Your task to perform on an android device: Open privacy settings Image 0: 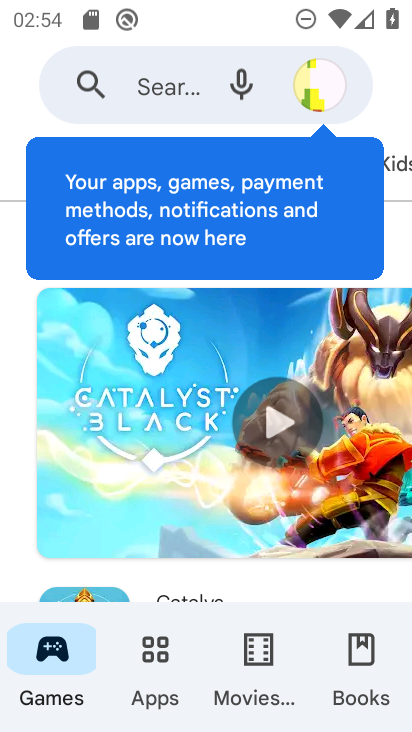
Step 0: press home button
Your task to perform on an android device: Open privacy settings Image 1: 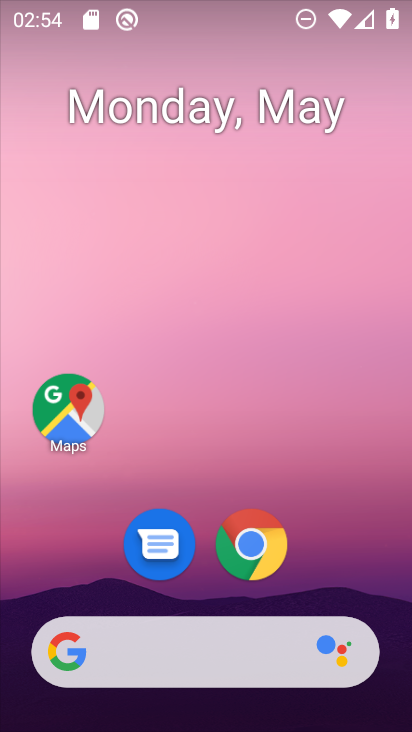
Step 1: drag from (360, 590) to (379, 164)
Your task to perform on an android device: Open privacy settings Image 2: 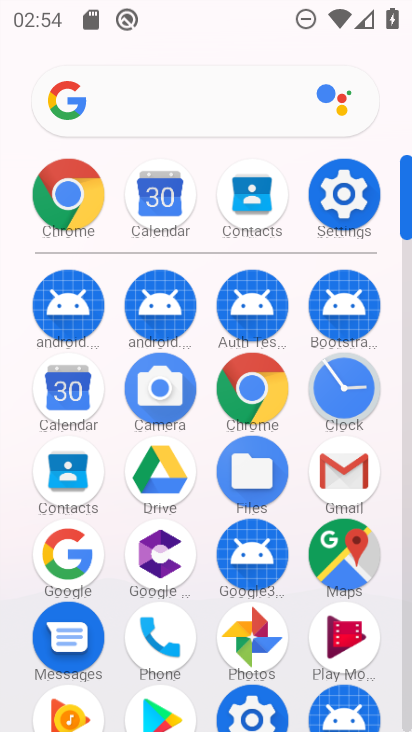
Step 2: click (342, 217)
Your task to perform on an android device: Open privacy settings Image 3: 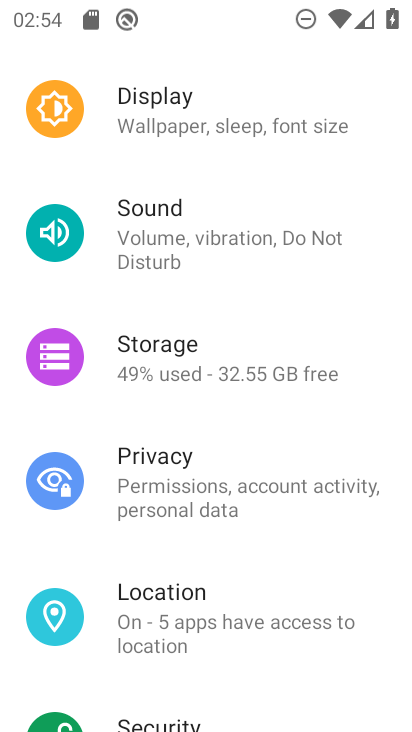
Step 3: drag from (371, 227) to (373, 326)
Your task to perform on an android device: Open privacy settings Image 4: 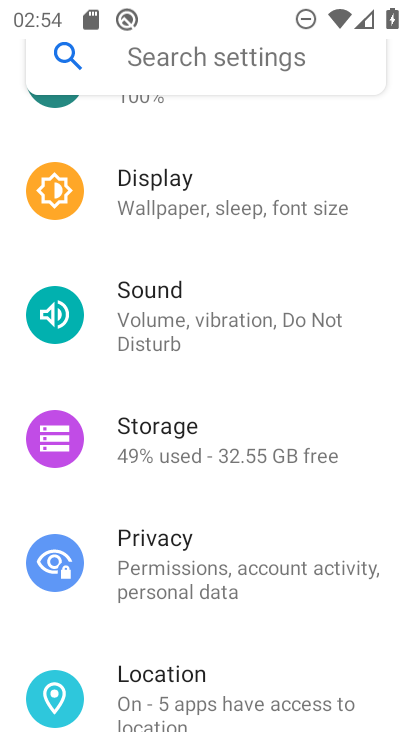
Step 4: drag from (365, 202) to (374, 300)
Your task to perform on an android device: Open privacy settings Image 5: 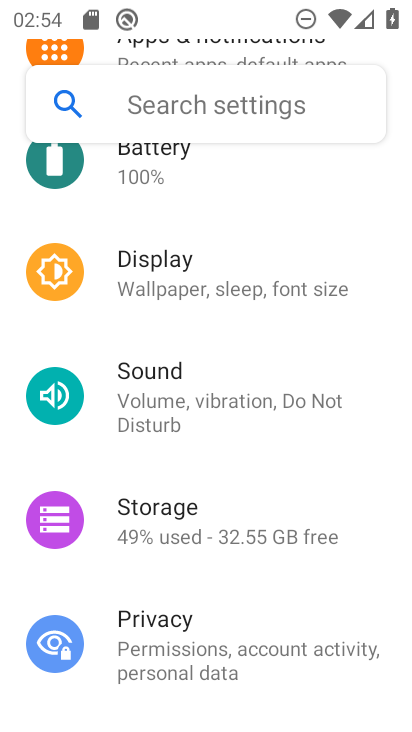
Step 5: drag from (363, 180) to (377, 359)
Your task to perform on an android device: Open privacy settings Image 6: 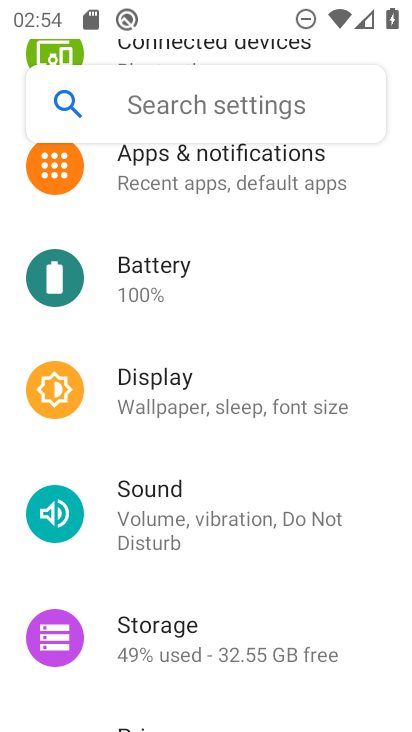
Step 6: drag from (363, 221) to (360, 346)
Your task to perform on an android device: Open privacy settings Image 7: 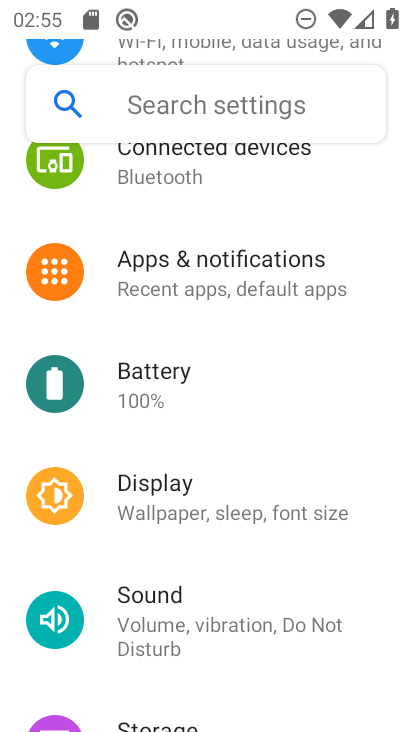
Step 7: drag from (352, 181) to (347, 384)
Your task to perform on an android device: Open privacy settings Image 8: 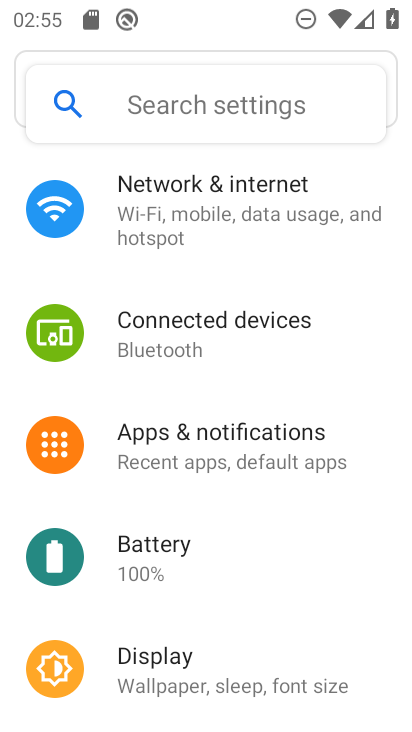
Step 8: drag from (359, 177) to (360, 377)
Your task to perform on an android device: Open privacy settings Image 9: 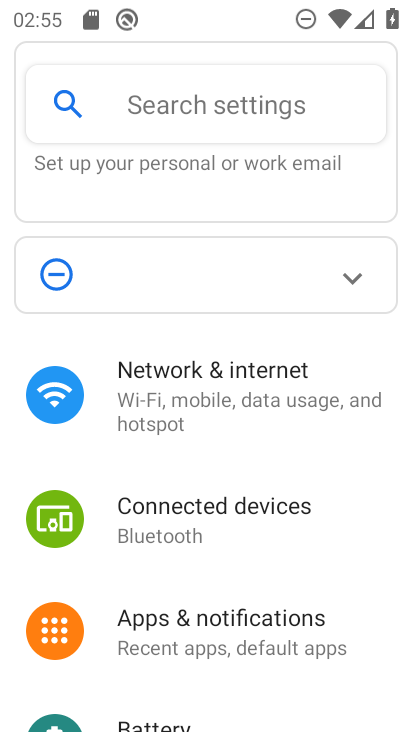
Step 9: drag from (363, 439) to (368, 308)
Your task to perform on an android device: Open privacy settings Image 10: 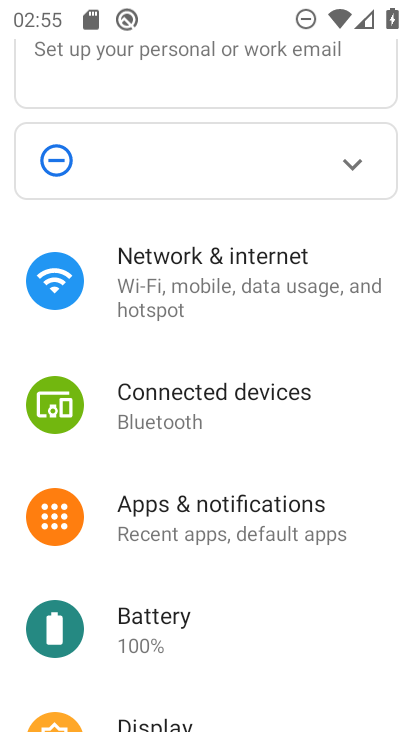
Step 10: drag from (370, 455) to (371, 326)
Your task to perform on an android device: Open privacy settings Image 11: 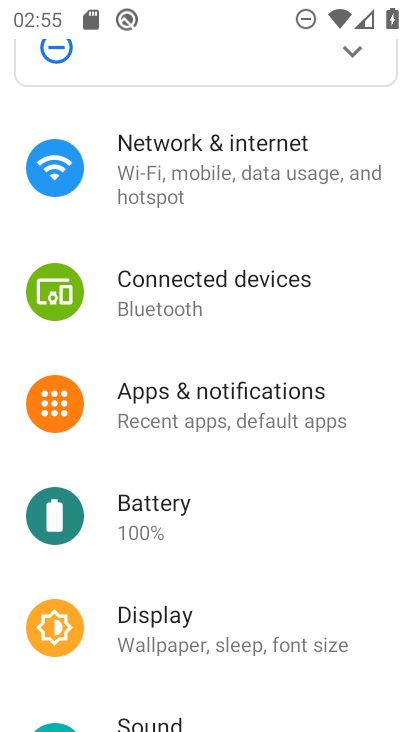
Step 11: drag from (357, 470) to (374, 303)
Your task to perform on an android device: Open privacy settings Image 12: 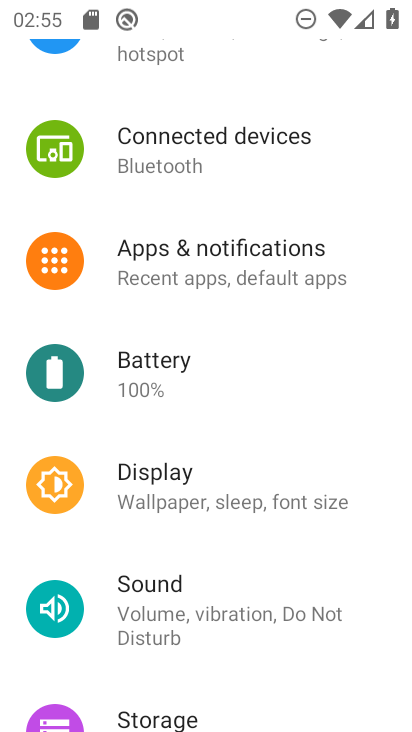
Step 12: drag from (378, 511) to (365, 324)
Your task to perform on an android device: Open privacy settings Image 13: 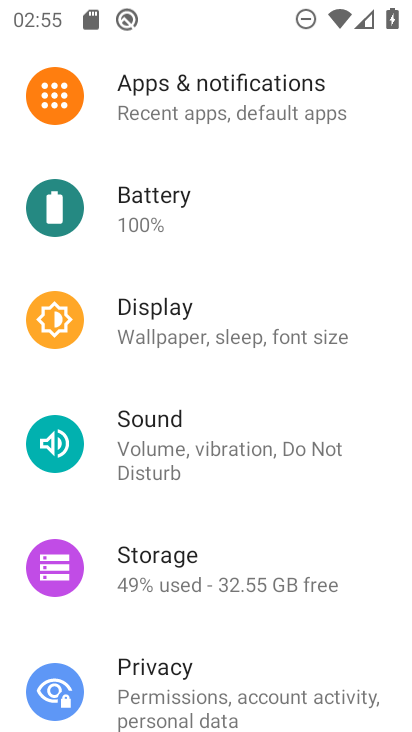
Step 13: drag from (371, 538) to (374, 318)
Your task to perform on an android device: Open privacy settings Image 14: 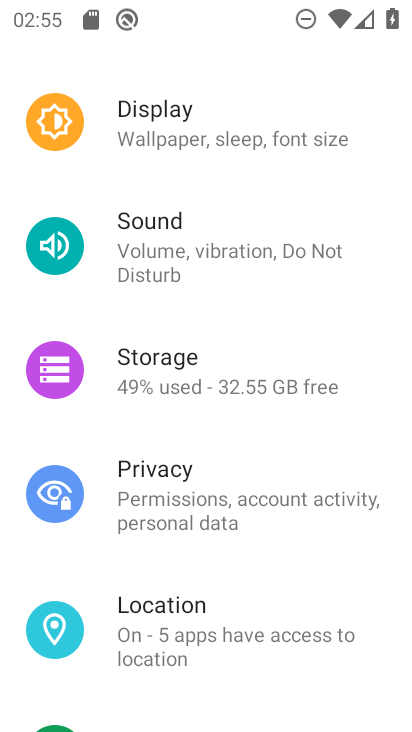
Step 14: drag from (366, 572) to (375, 376)
Your task to perform on an android device: Open privacy settings Image 15: 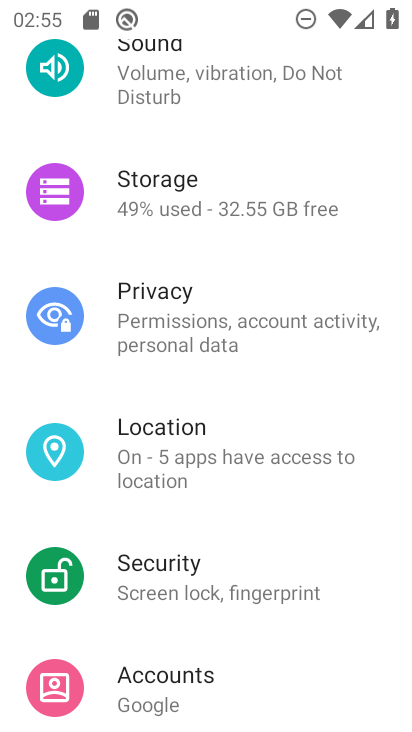
Step 15: click (301, 342)
Your task to perform on an android device: Open privacy settings Image 16: 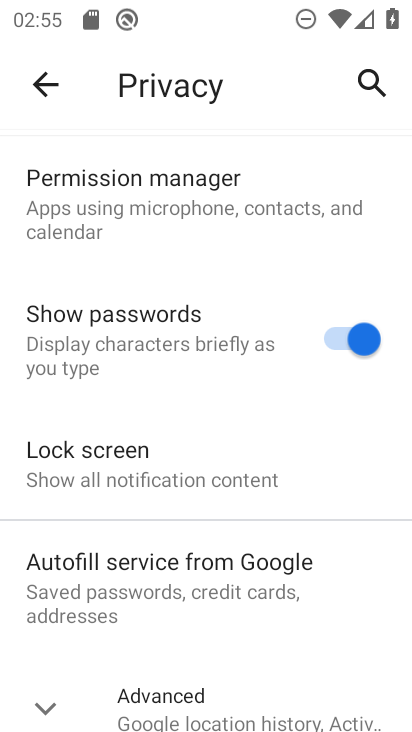
Step 16: task complete